Your task to perform on an android device: Go to eBay Image 0: 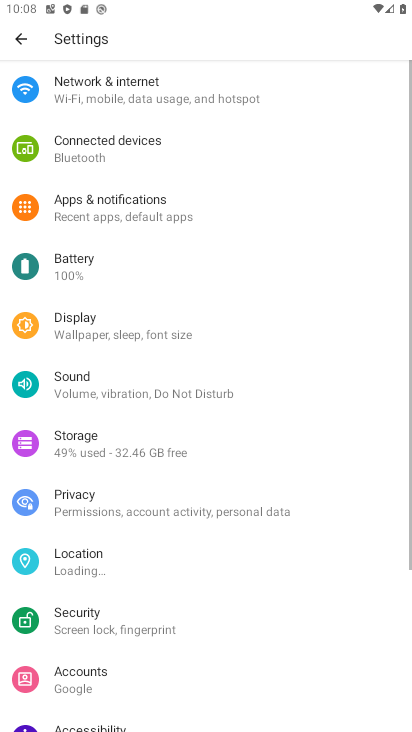
Step 0: drag from (296, 695) to (229, 95)
Your task to perform on an android device: Go to eBay Image 1: 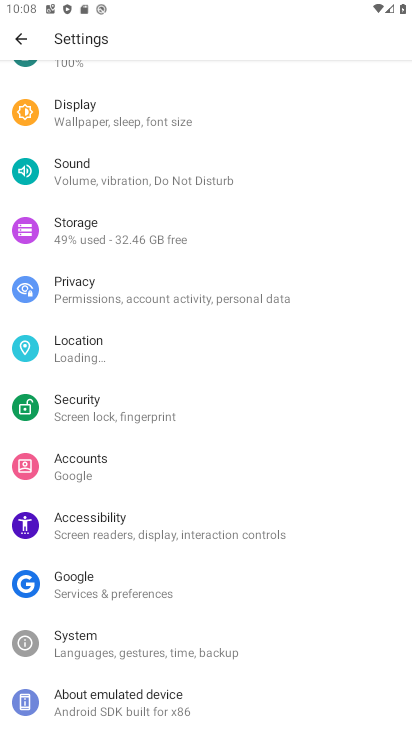
Step 1: press back button
Your task to perform on an android device: Go to eBay Image 2: 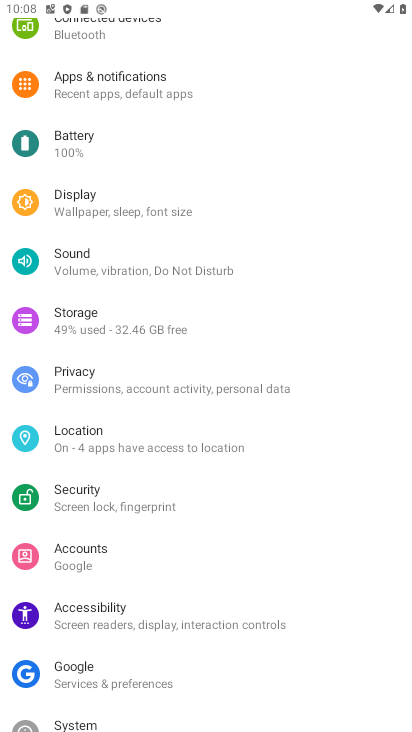
Step 2: press home button
Your task to perform on an android device: Go to eBay Image 3: 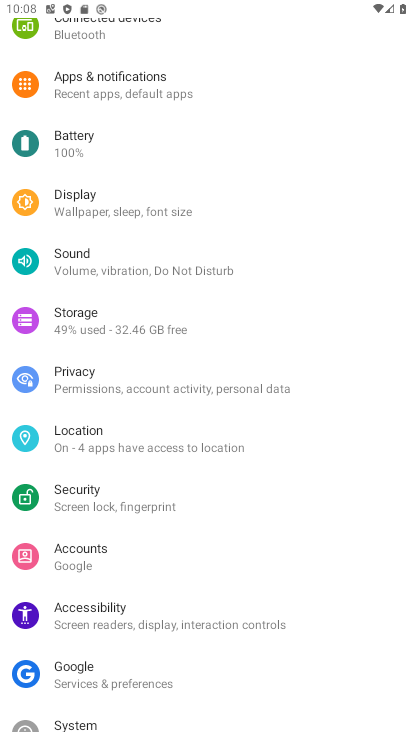
Step 3: press home button
Your task to perform on an android device: Go to eBay Image 4: 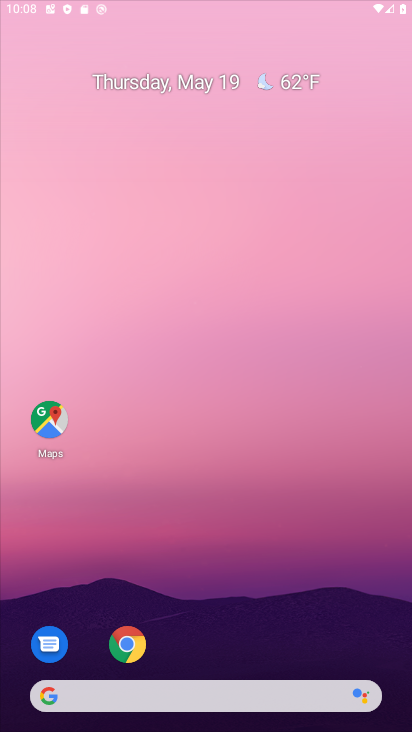
Step 4: press home button
Your task to perform on an android device: Go to eBay Image 5: 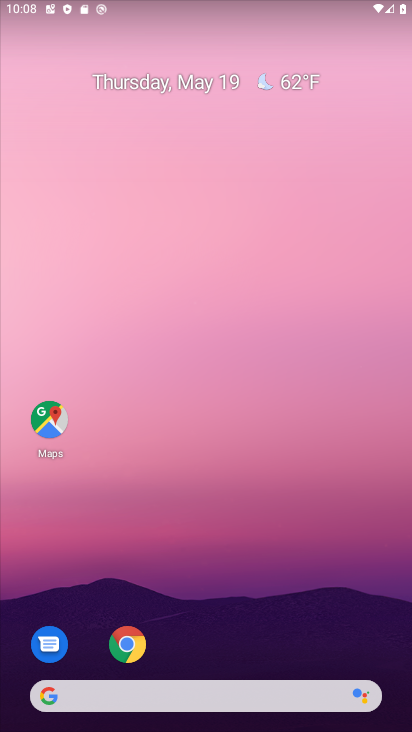
Step 5: drag from (308, 649) to (238, 99)
Your task to perform on an android device: Go to eBay Image 6: 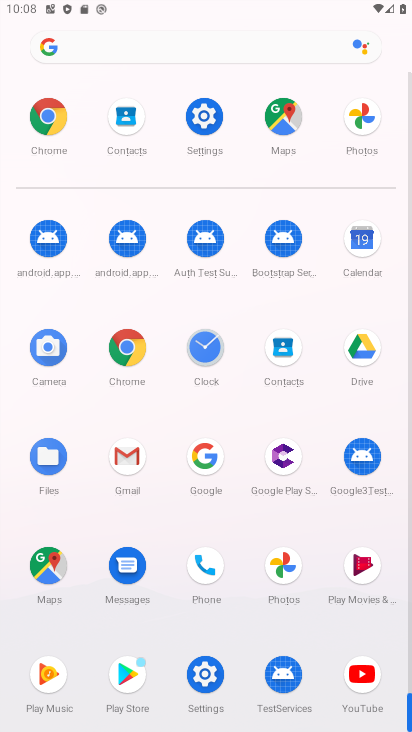
Step 6: click (55, 117)
Your task to perform on an android device: Go to eBay Image 7: 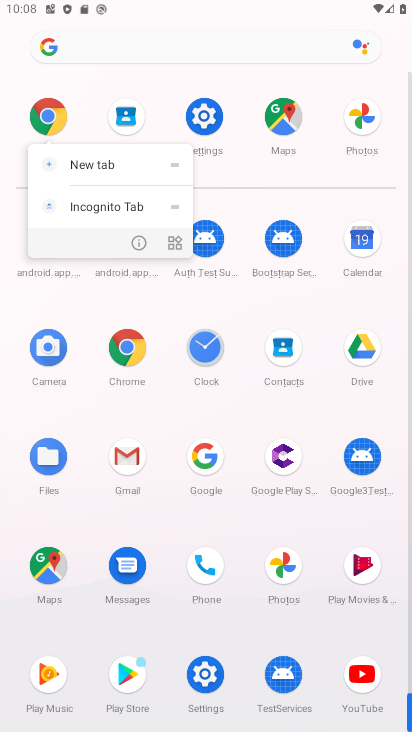
Step 7: click (51, 116)
Your task to perform on an android device: Go to eBay Image 8: 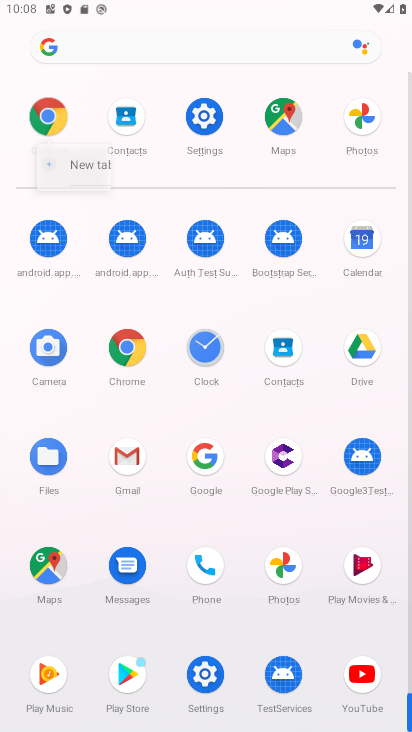
Step 8: click (52, 115)
Your task to perform on an android device: Go to eBay Image 9: 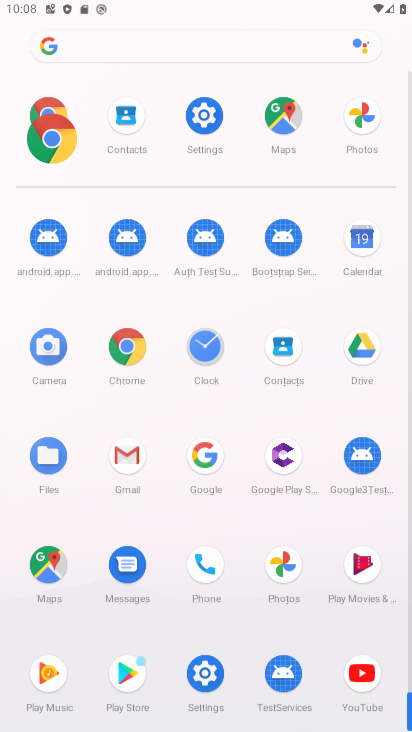
Step 9: click (52, 115)
Your task to perform on an android device: Go to eBay Image 10: 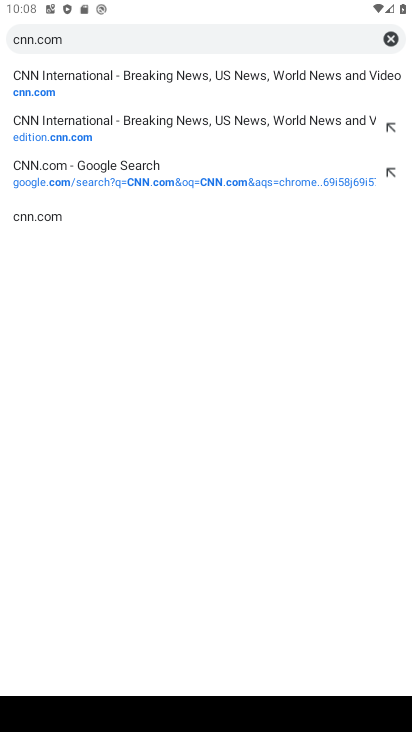
Step 10: click (31, 140)
Your task to perform on an android device: Go to eBay Image 11: 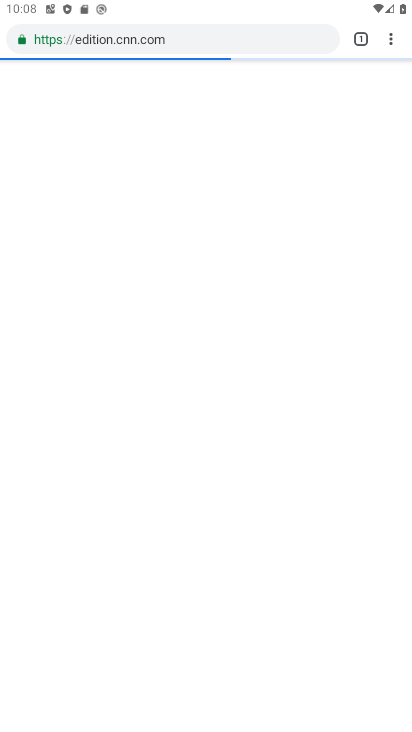
Step 11: press back button
Your task to perform on an android device: Go to eBay Image 12: 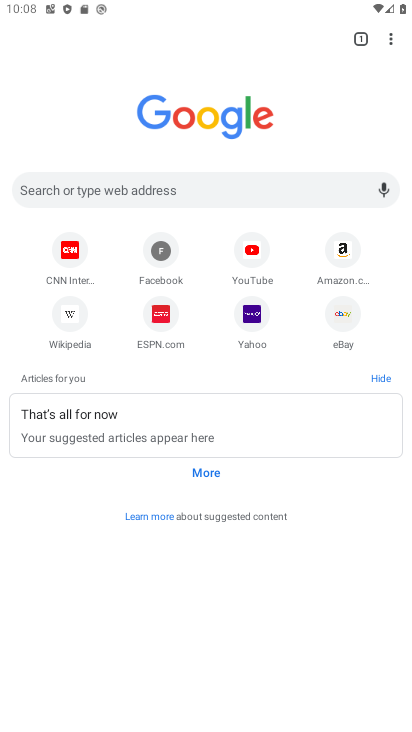
Step 12: click (344, 310)
Your task to perform on an android device: Go to eBay Image 13: 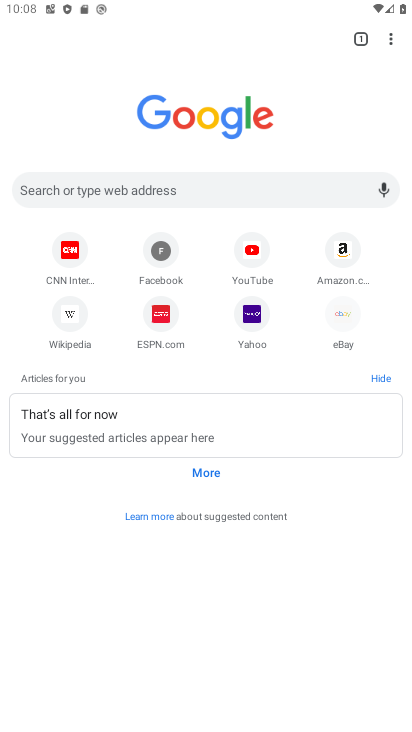
Step 13: click (344, 309)
Your task to perform on an android device: Go to eBay Image 14: 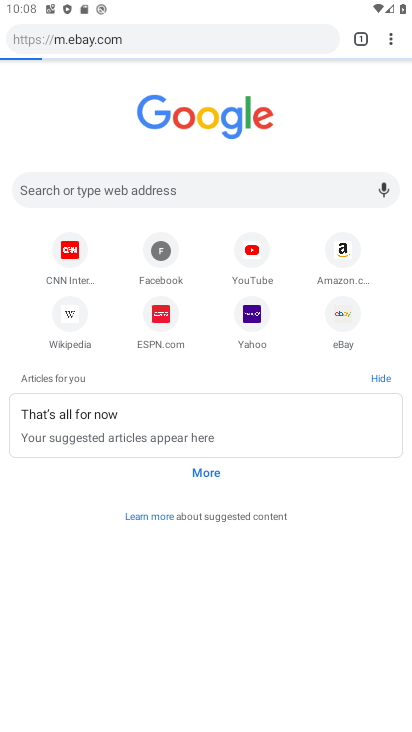
Step 14: click (344, 309)
Your task to perform on an android device: Go to eBay Image 15: 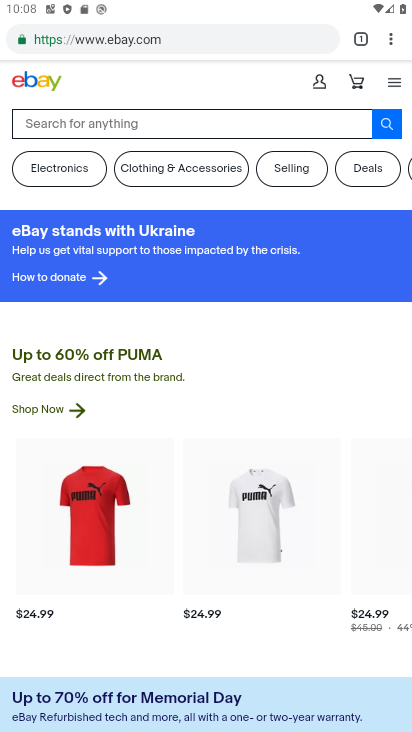
Step 15: task complete